Your task to perform on an android device: What's the weather going to be tomorrow? Image 0: 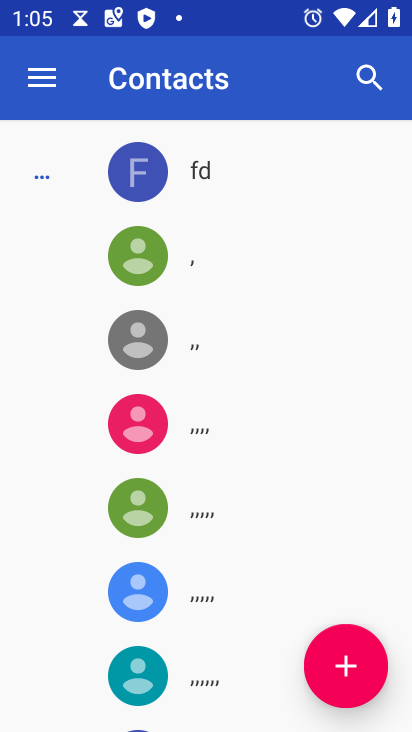
Step 0: drag from (327, 540) to (349, 6)
Your task to perform on an android device: What's the weather going to be tomorrow? Image 1: 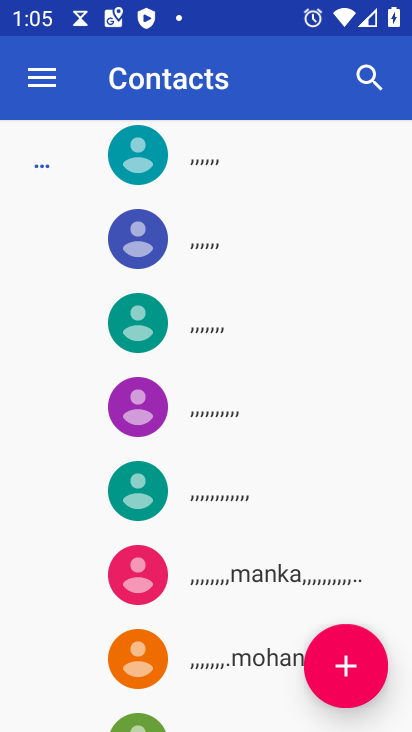
Step 1: press home button
Your task to perform on an android device: What's the weather going to be tomorrow? Image 2: 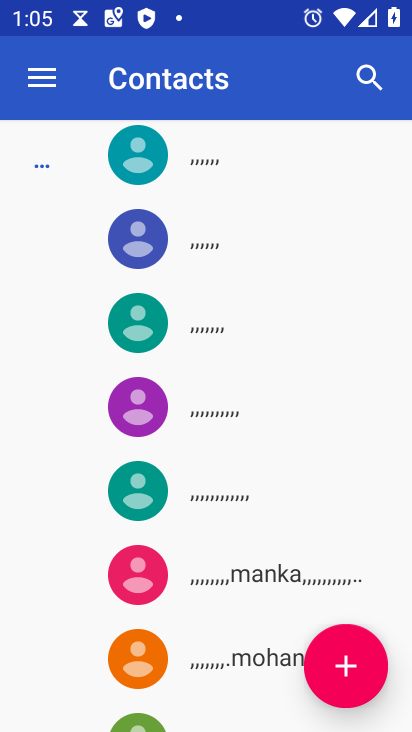
Step 2: drag from (349, 6) to (303, 20)
Your task to perform on an android device: What's the weather going to be tomorrow? Image 3: 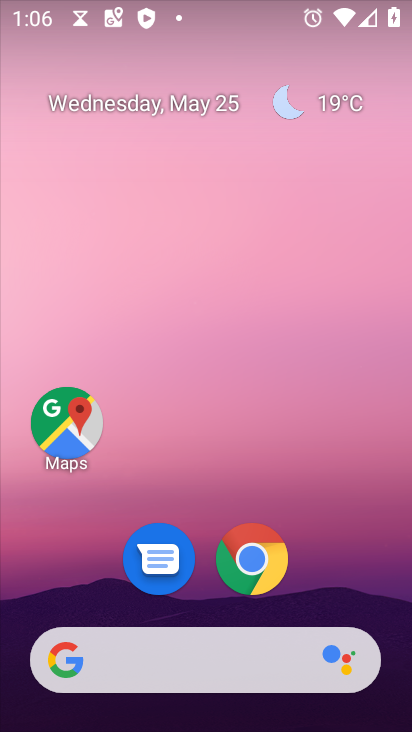
Step 3: click (320, 95)
Your task to perform on an android device: What's the weather going to be tomorrow? Image 4: 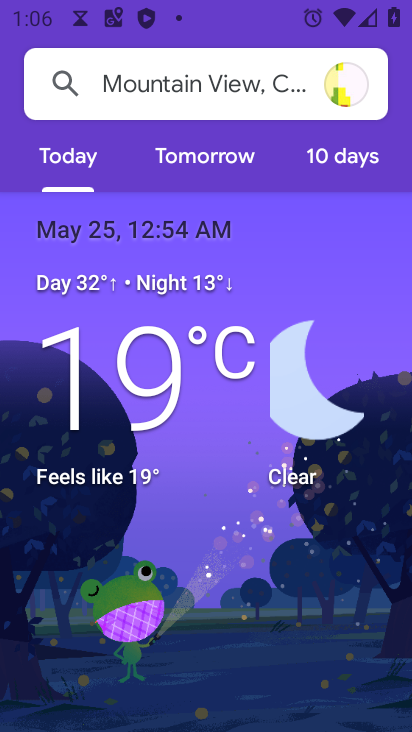
Step 4: click (195, 156)
Your task to perform on an android device: What's the weather going to be tomorrow? Image 5: 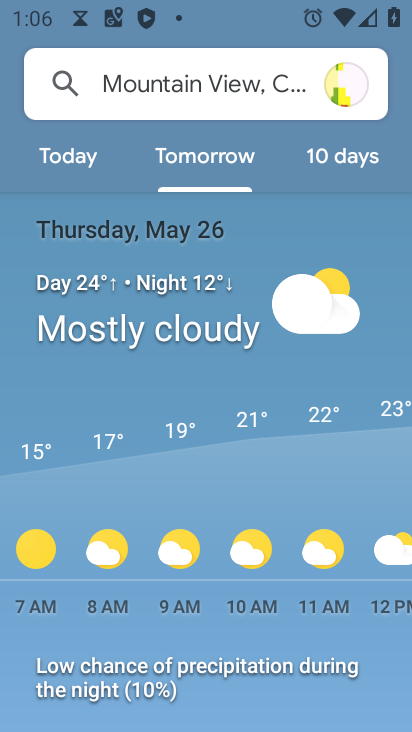
Step 5: task complete